Your task to perform on an android device: Open CNN.com Image 0: 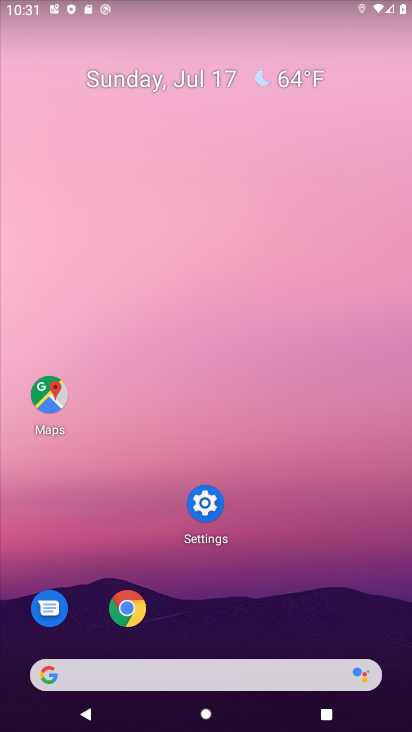
Step 0: click (121, 608)
Your task to perform on an android device: Open CNN.com Image 1: 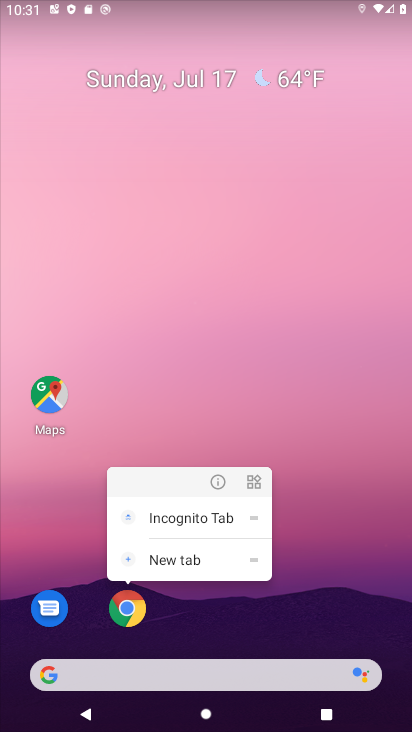
Step 1: click (127, 605)
Your task to perform on an android device: Open CNN.com Image 2: 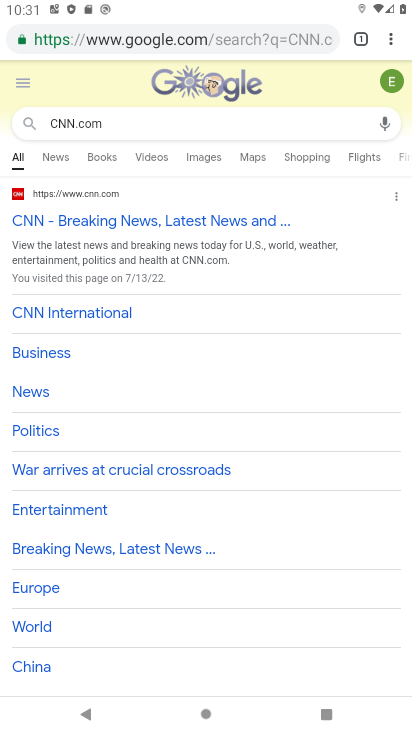
Step 2: click (287, 39)
Your task to perform on an android device: Open CNN.com Image 3: 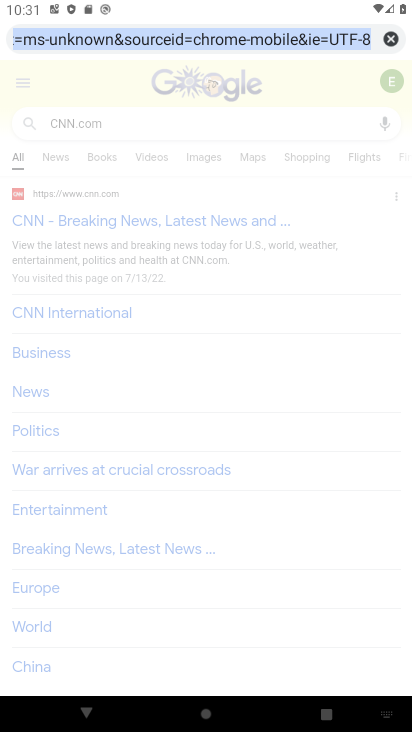
Step 3: click (389, 38)
Your task to perform on an android device: Open CNN.com Image 4: 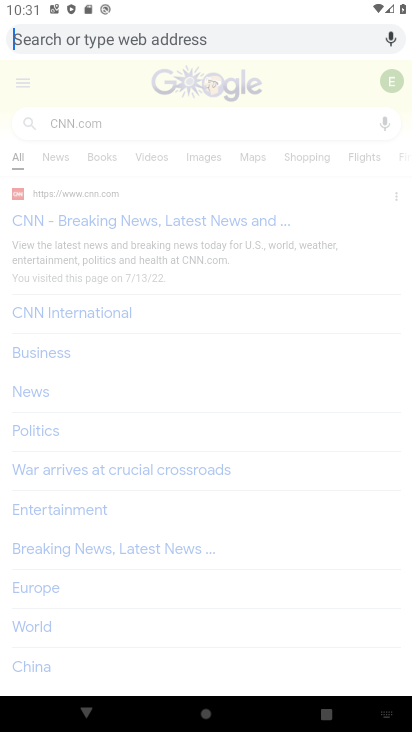
Step 4: type "CNN.com"
Your task to perform on an android device: Open CNN.com Image 5: 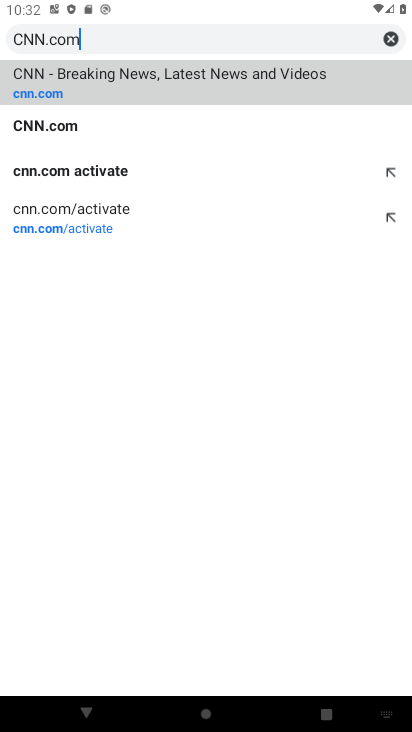
Step 5: click (30, 128)
Your task to perform on an android device: Open CNN.com Image 6: 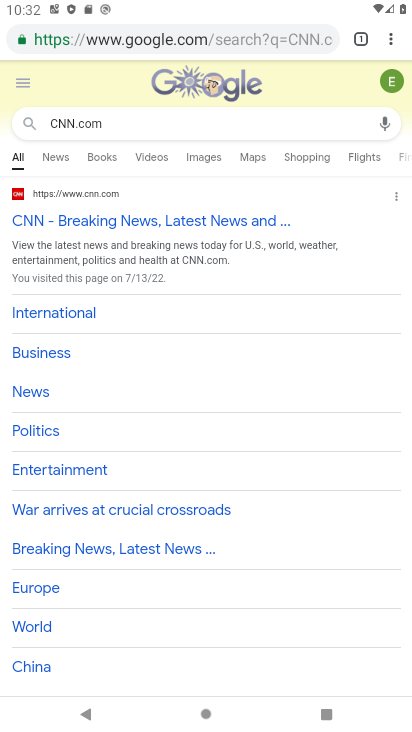
Step 6: task complete